Your task to perform on an android device: Find coffee shops on Maps Image 0: 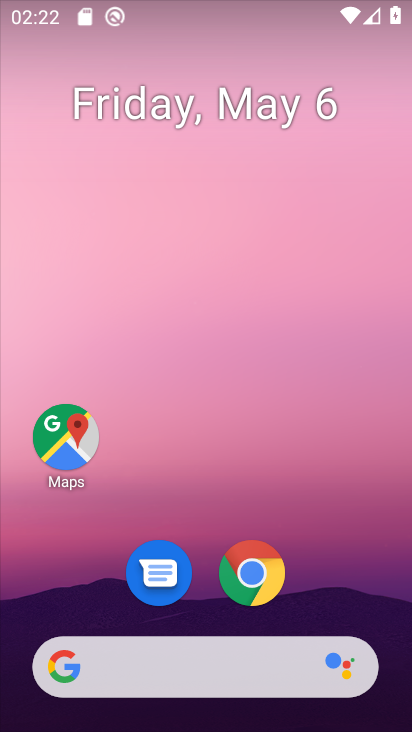
Step 0: drag from (301, 581) to (308, 174)
Your task to perform on an android device: Find coffee shops on Maps Image 1: 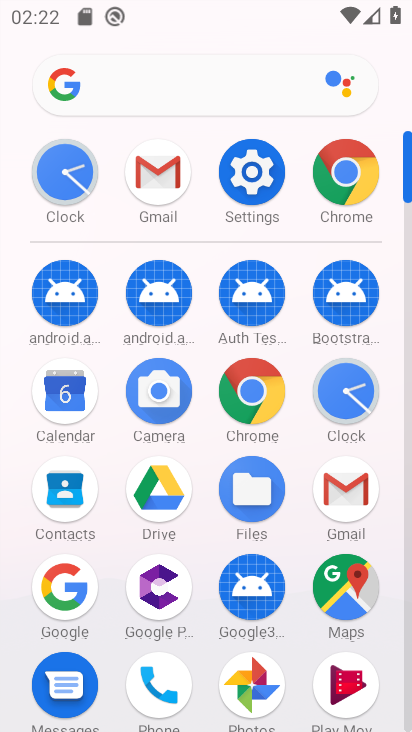
Step 1: click (335, 582)
Your task to perform on an android device: Find coffee shops on Maps Image 2: 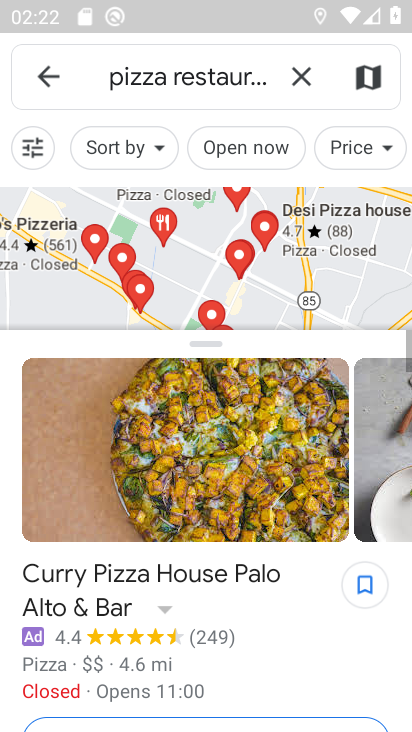
Step 2: click (301, 78)
Your task to perform on an android device: Find coffee shops on Maps Image 3: 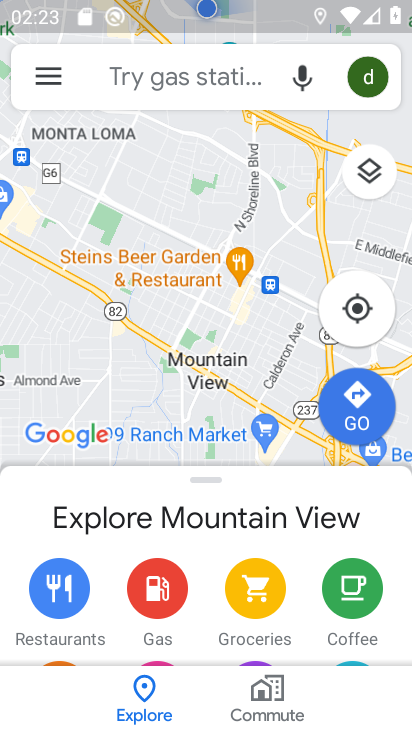
Step 3: click (210, 71)
Your task to perform on an android device: Find coffee shops on Maps Image 4: 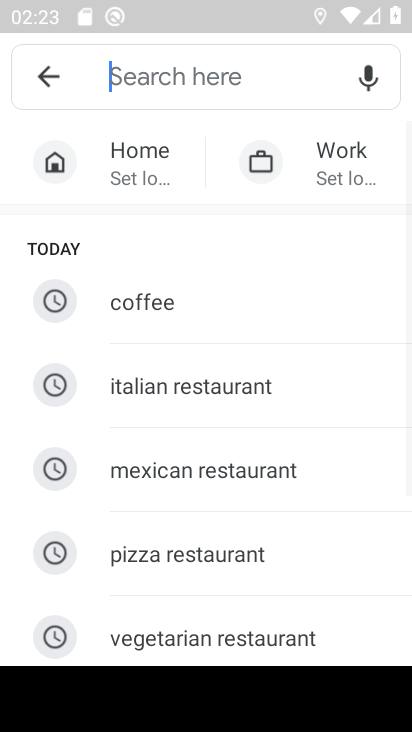
Step 4: click (186, 298)
Your task to perform on an android device: Find coffee shops on Maps Image 5: 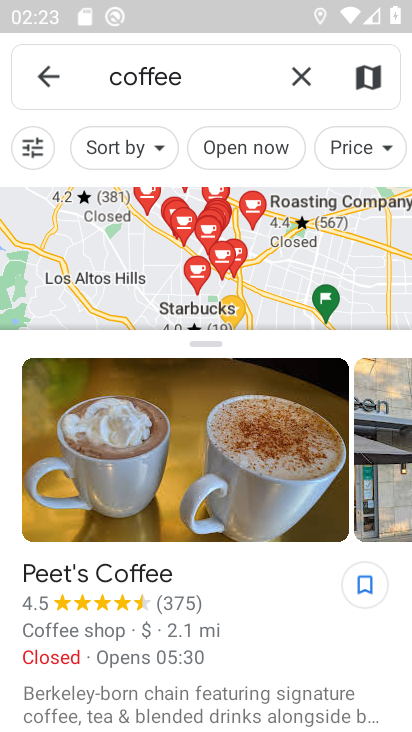
Step 5: task complete